Your task to perform on an android device: turn off data saver in the chrome app Image 0: 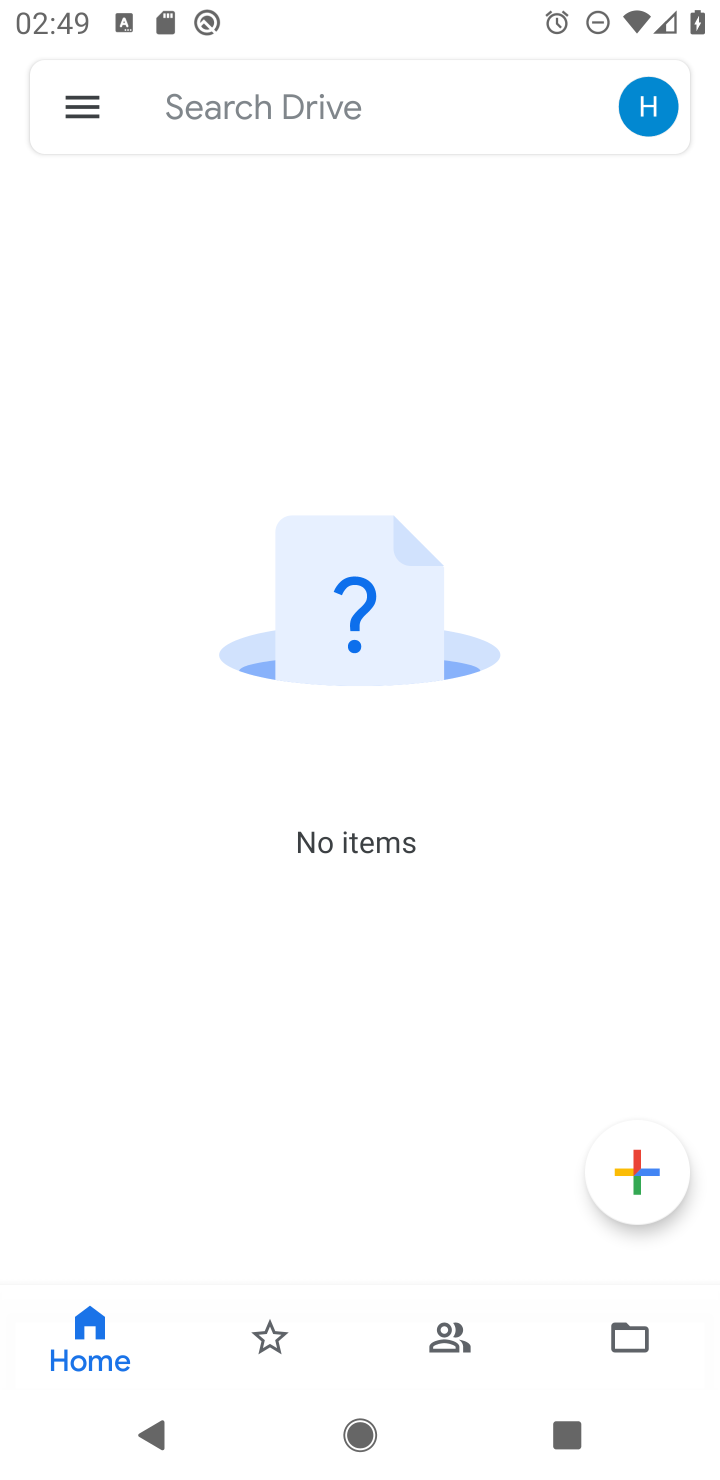
Step 0: press home button
Your task to perform on an android device: turn off data saver in the chrome app Image 1: 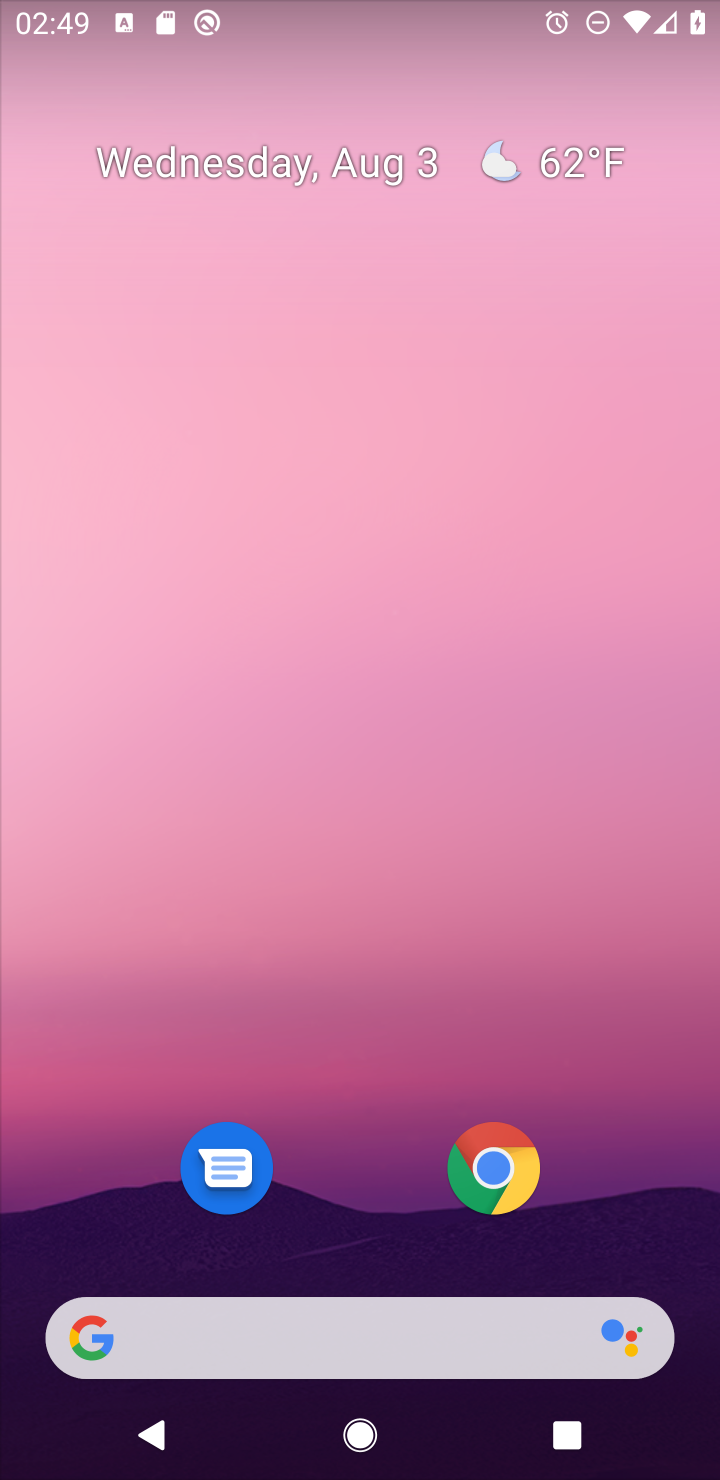
Step 1: click (492, 1178)
Your task to perform on an android device: turn off data saver in the chrome app Image 2: 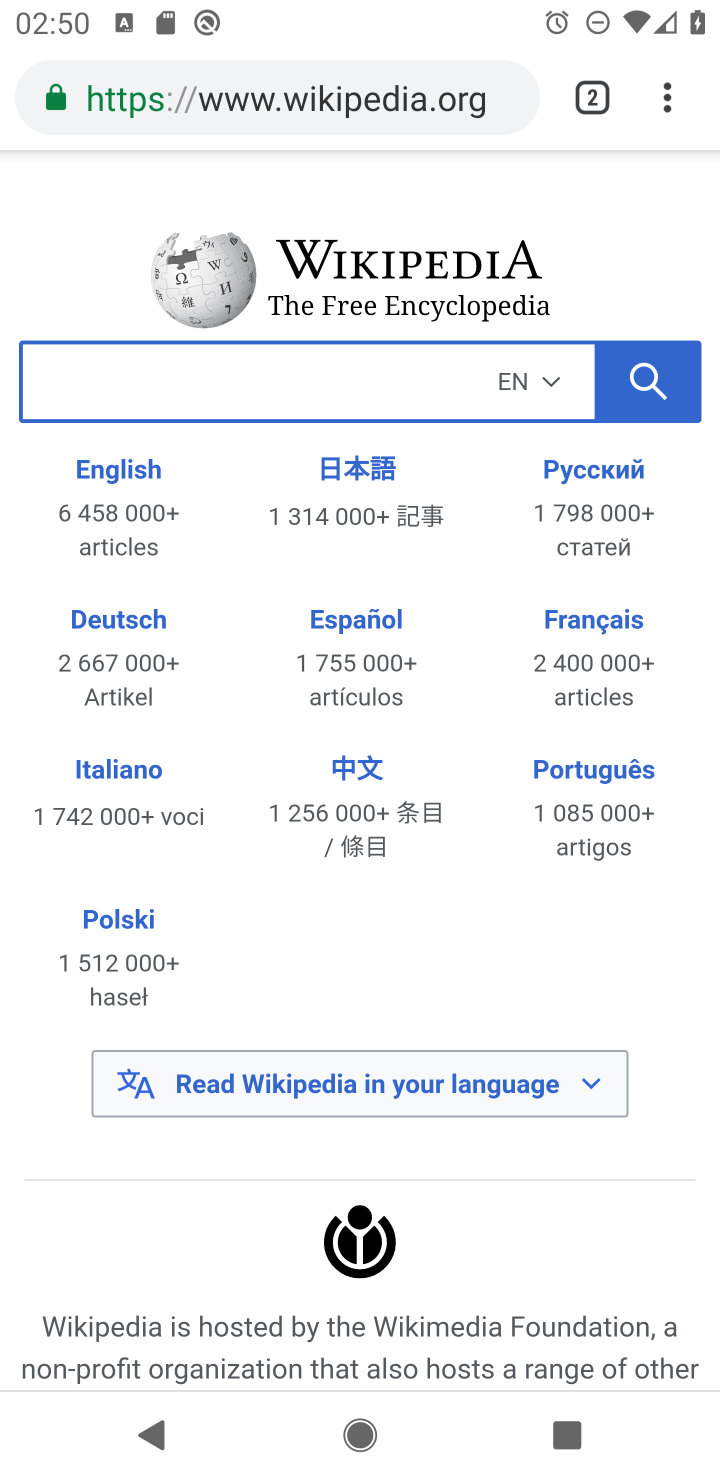
Step 2: click (658, 106)
Your task to perform on an android device: turn off data saver in the chrome app Image 3: 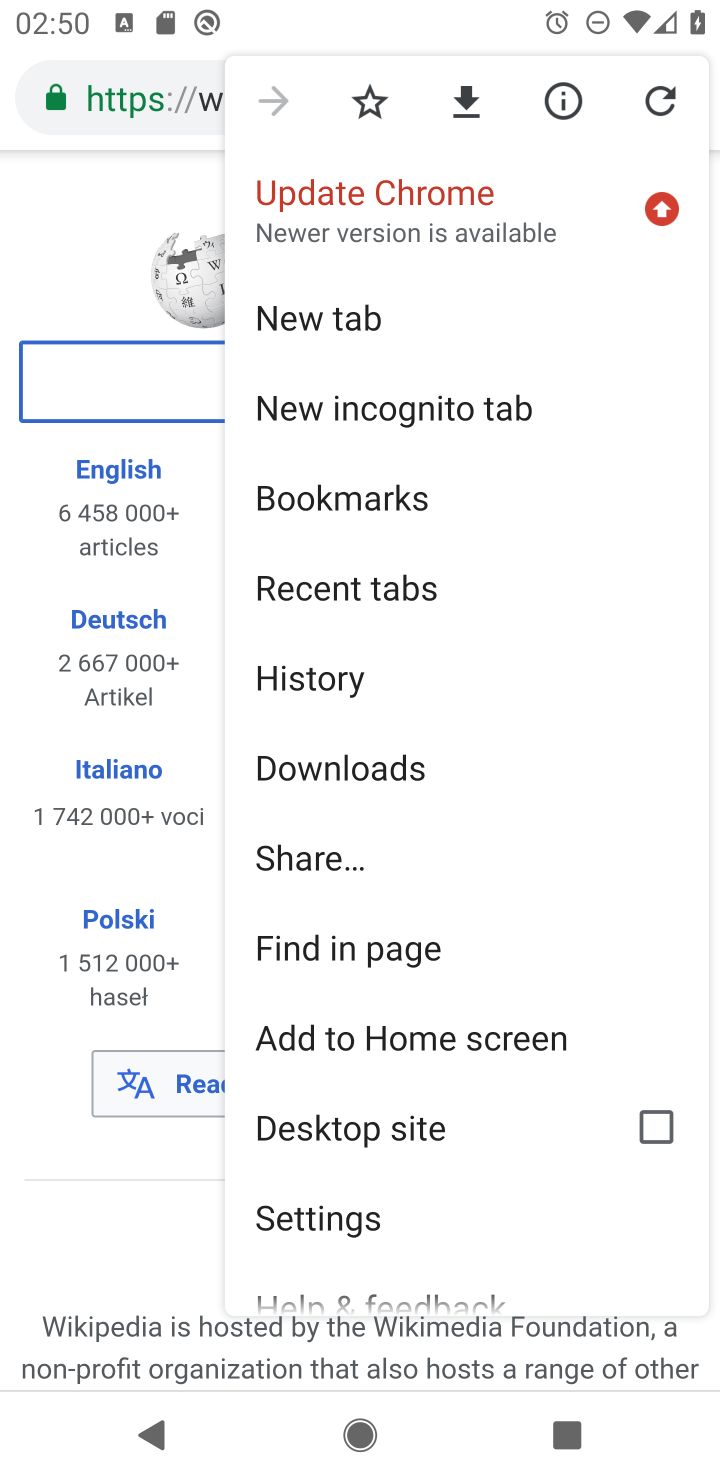
Step 3: click (335, 1220)
Your task to perform on an android device: turn off data saver in the chrome app Image 4: 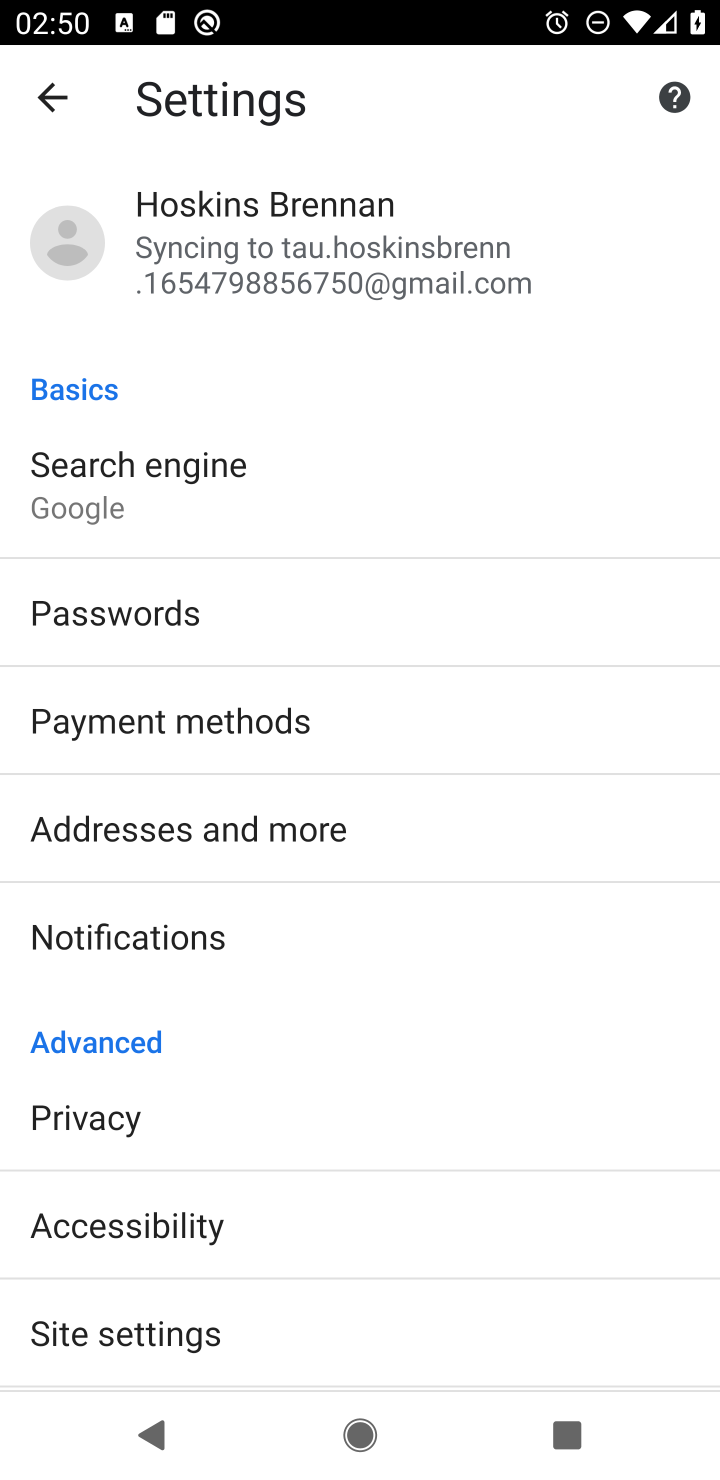
Step 4: drag from (443, 1285) to (427, 442)
Your task to perform on an android device: turn off data saver in the chrome app Image 5: 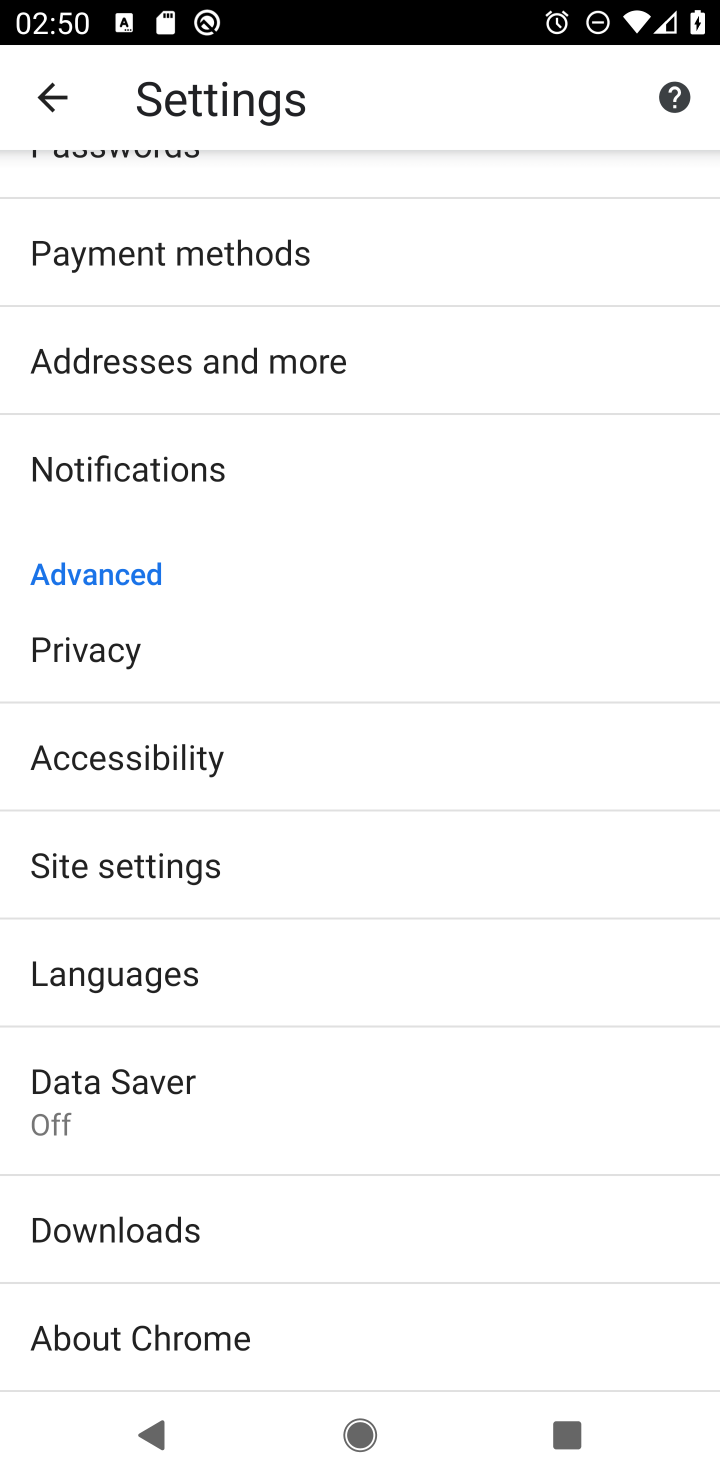
Step 5: click (66, 1083)
Your task to perform on an android device: turn off data saver in the chrome app Image 6: 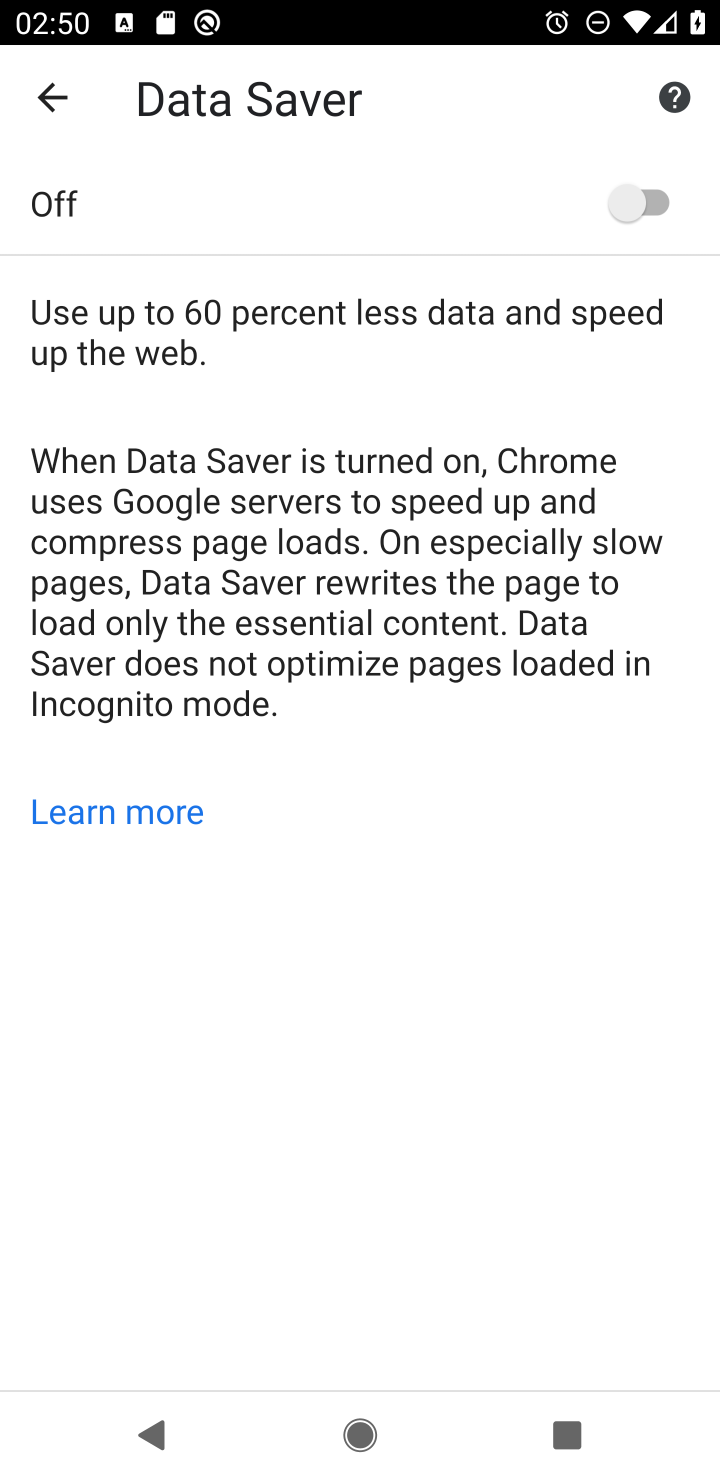
Step 6: task complete